Your task to perform on an android device: View the shopping cart on amazon. Image 0: 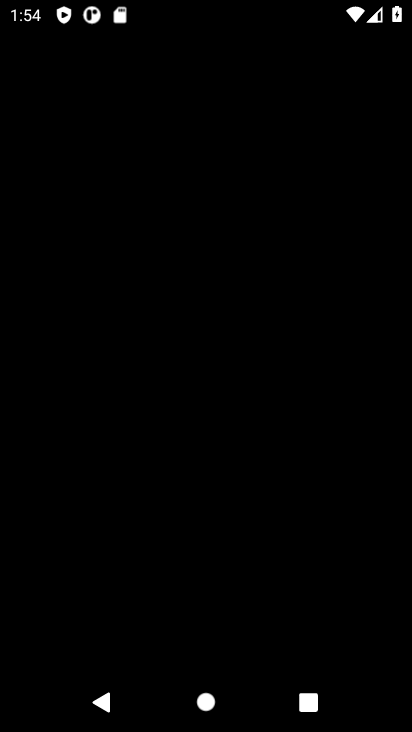
Step 0: press home button
Your task to perform on an android device: View the shopping cart on amazon. Image 1: 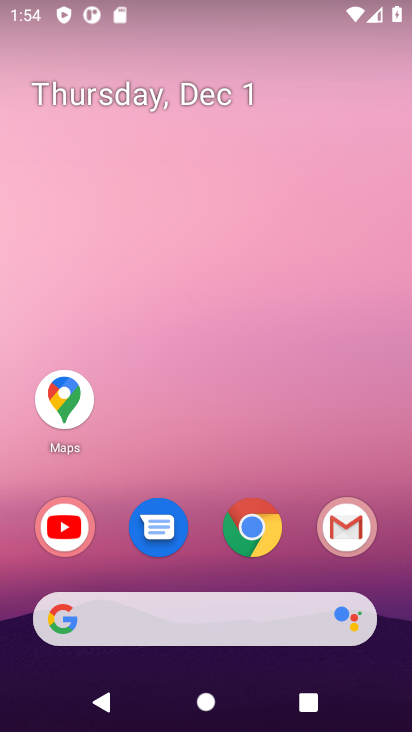
Step 1: click (263, 539)
Your task to perform on an android device: View the shopping cart on amazon. Image 2: 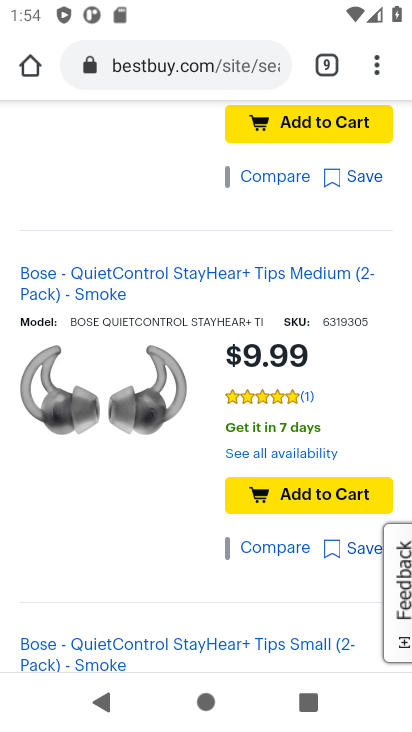
Step 2: click (188, 58)
Your task to perform on an android device: View the shopping cart on amazon. Image 3: 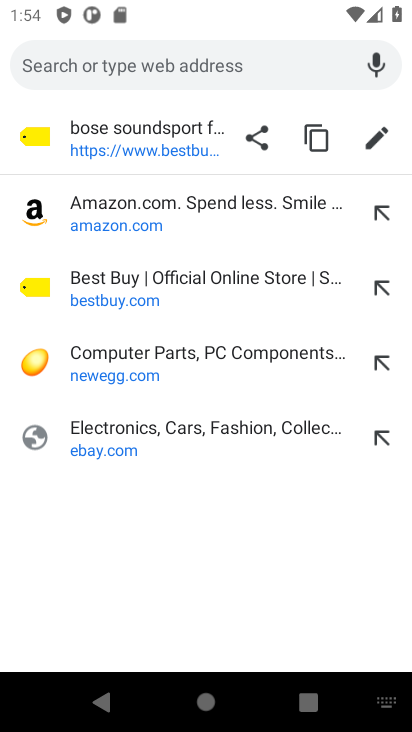
Step 3: click (89, 217)
Your task to perform on an android device: View the shopping cart on amazon. Image 4: 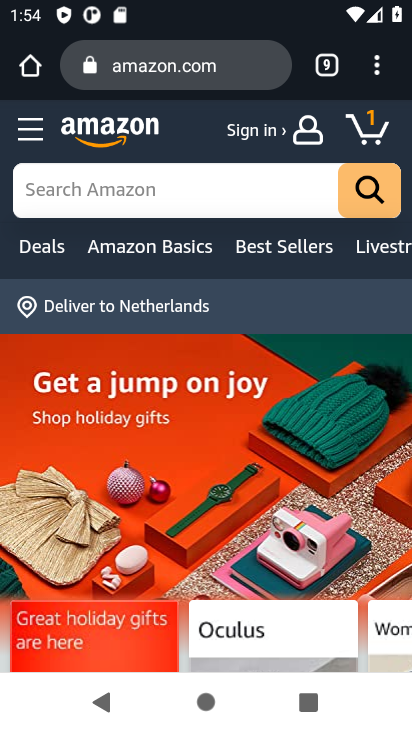
Step 4: click (373, 135)
Your task to perform on an android device: View the shopping cart on amazon. Image 5: 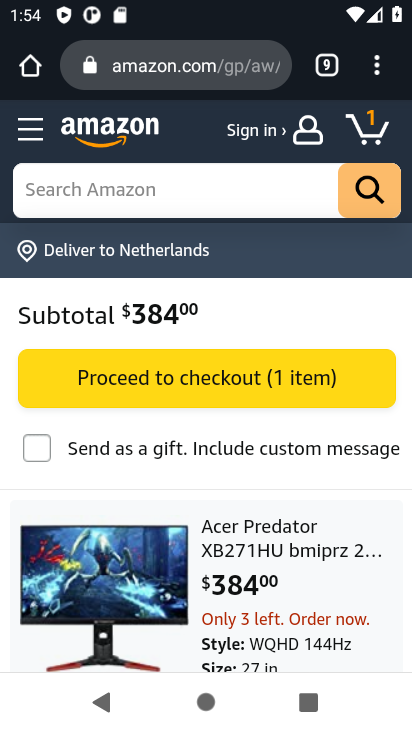
Step 5: task complete